Your task to perform on an android device: toggle airplane mode Image 0: 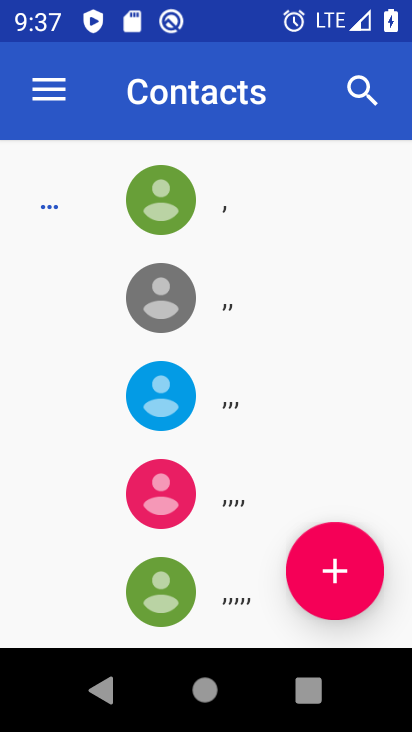
Step 0: drag from (220, 563) to (247, 99)
Your task to perform on an android device: toggle airplane mode Image 1: 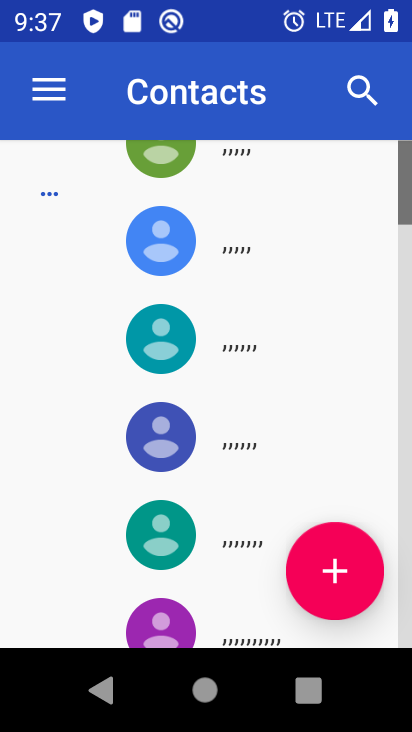
Step 1: drag from (227, 193) to (386, 654)
Your task to perform on an android device: toggle airplane mode Image 2: 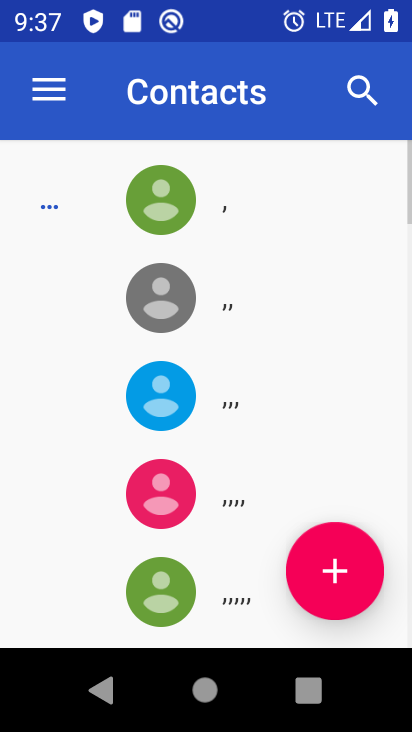
Step 2: press home button
Your task to perform on an android device: toggle airplane mode Image 3: 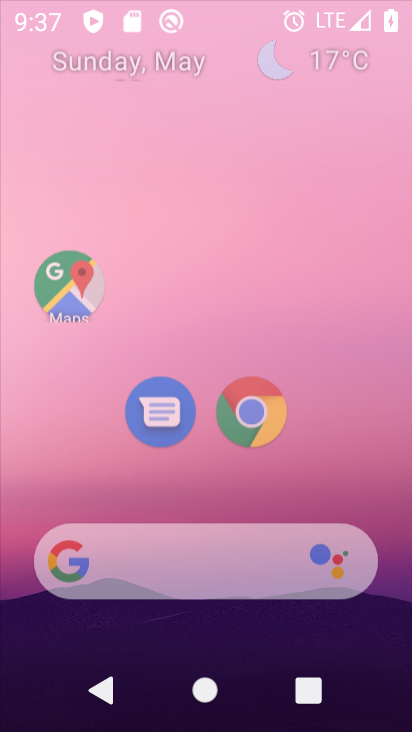
Step 3: drag from (229, 567) to (258, 217)
Your task to perform on an android device: toggle airplane mode Image 4: 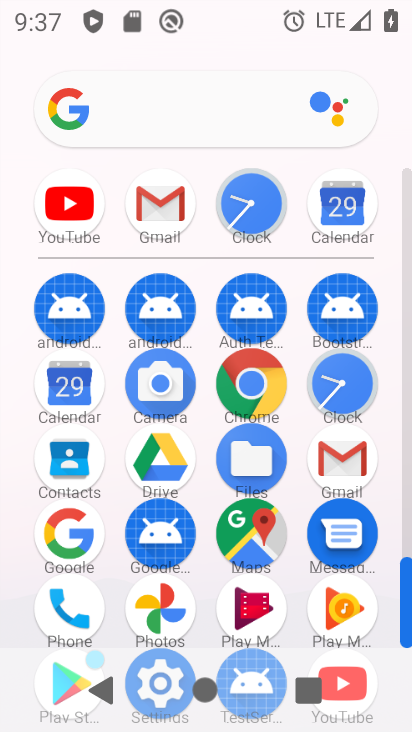
Step 4: drag from (216, 497) to (217, 271)
Your task to perform on an android device: toggle airplane mode Image 5: 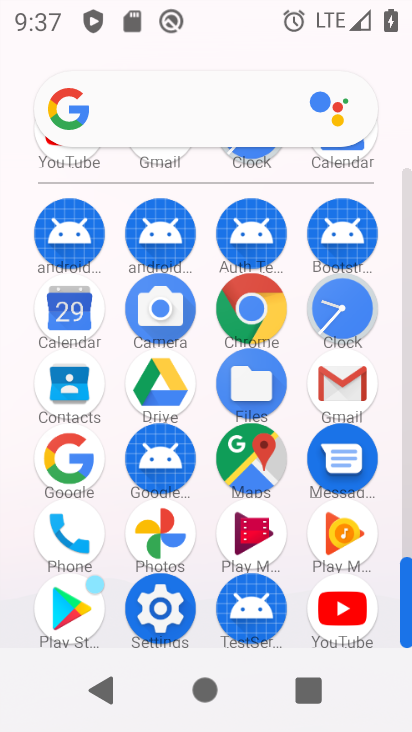
Step 5: click (146, 604)
Your task to perform on an android device: toggle airplane mode Image 6: 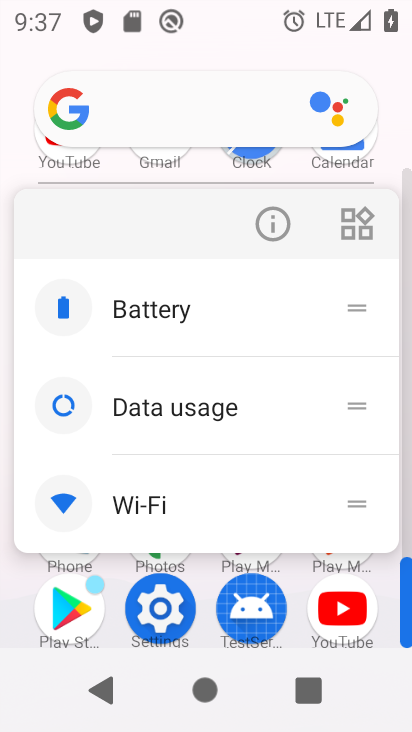
Step 6: click (279, 236)
Your task to perform on an android device: toggle airplane mode Image 7: 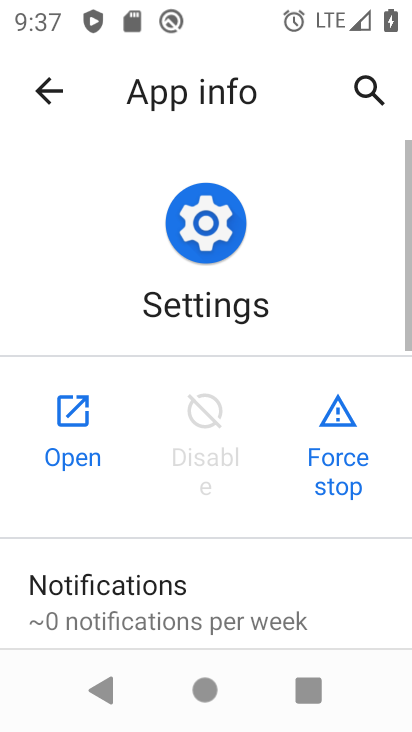
Step 7: click (106, 415)
Your task to perform on an android device: toggle airplane mode Image 8: 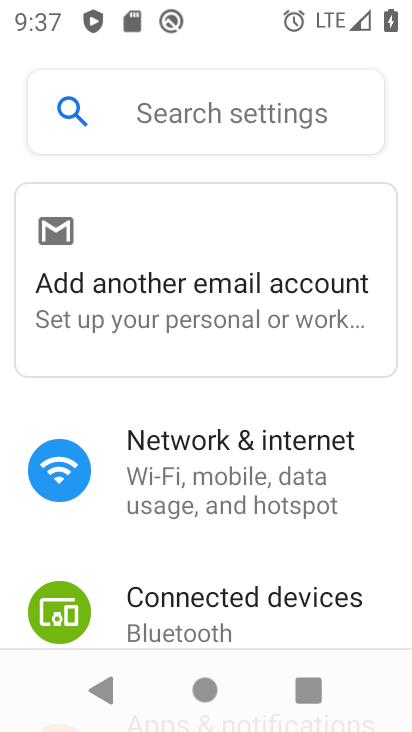
Step 8: click (259, 477)
Your task to perform on an android device: toggle airplane mode Image 9: 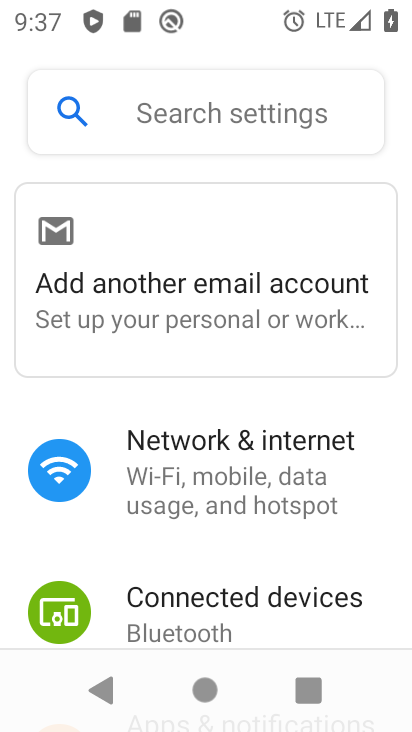
Step 9: click (259, 477)
Your task to perform on an android device: toggle airplane mode Image 10: 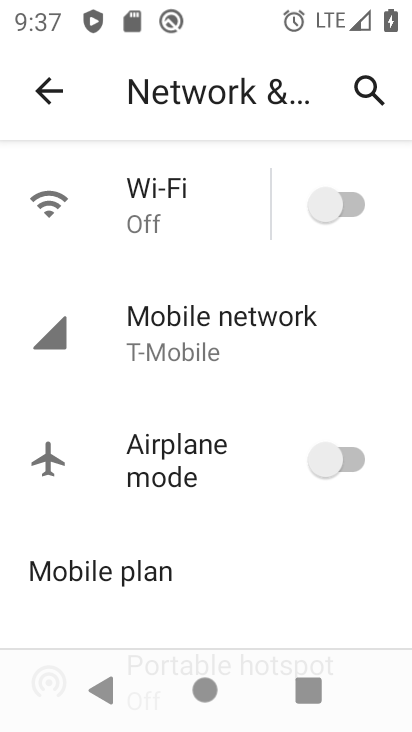
Step 10: click (198, 432)
Your task to perform on an android device: toggle airplane mode Image 11: 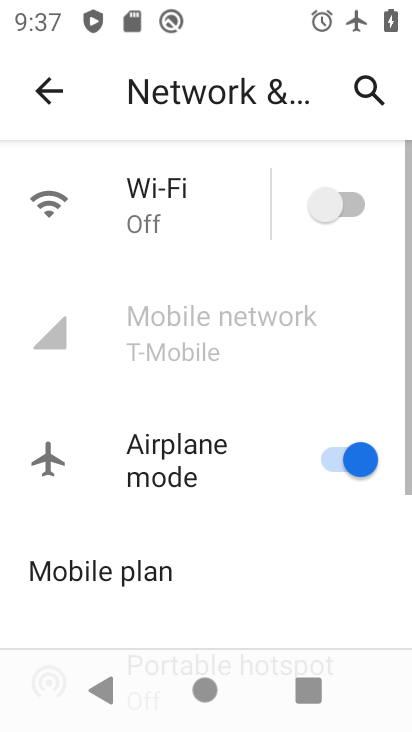
Step 11: task complete